Your task to perform on an android device: Do I have any events tomorrow? Image 0: 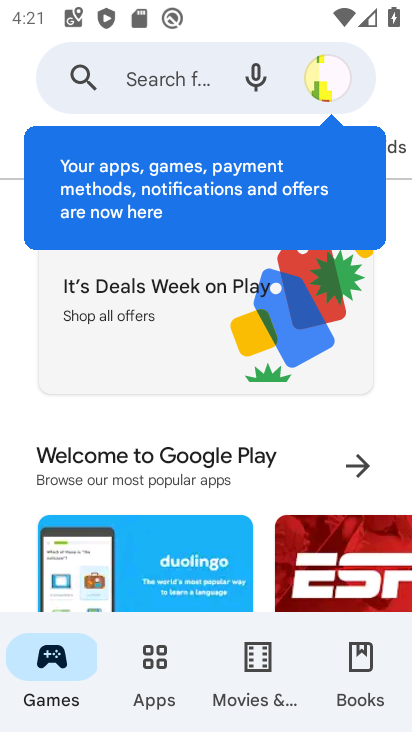
Step 0: press home button
Your task to perform on an android device: Do I have any events tomorrow? Image 1: 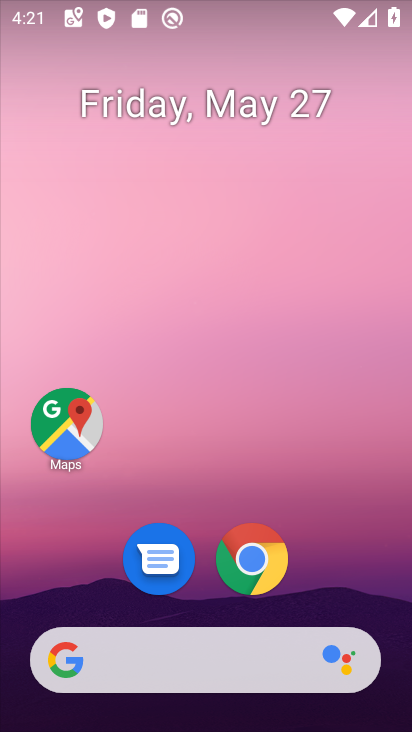
Step 1: drag from (393, 703) to (357, 148)
Your task to perform on an android device: Do I have any events tomorrow? Image 2: 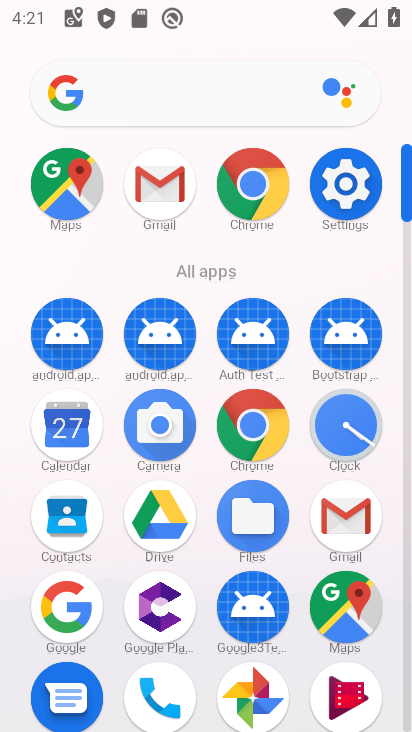
Step 2: click (67, 428)
Your task to perform on an android device: Do I have any events tomorrow? Image 3: 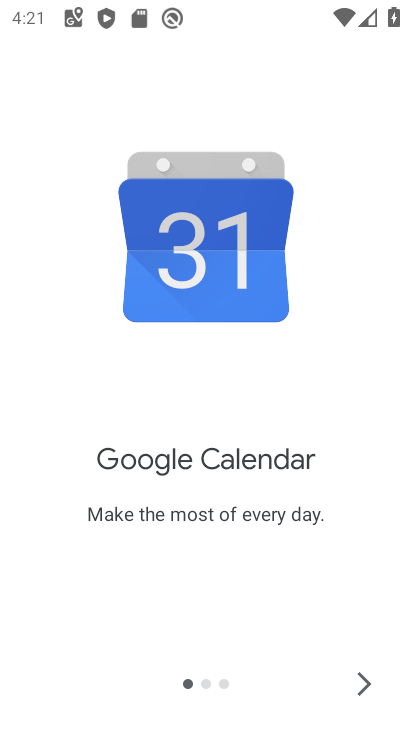
Step 3: click (350, 687)
Your task to perform on an android device: Do I have any events tomorrow? Image 4: 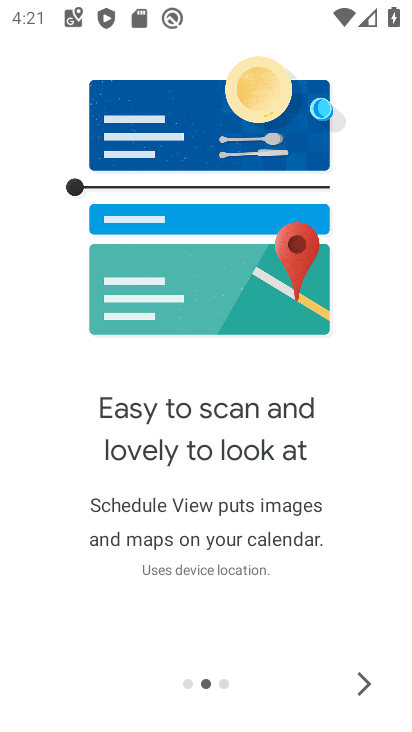
Step 4: click (352, 683)
Your task to perform on an android device: Do I have any events tomorrow? Image 5: 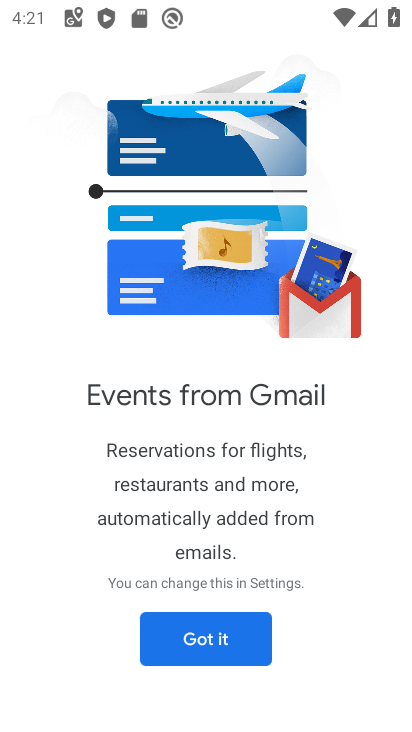
Step 5: click (264, 634)
Your task to perform on an android device: Do I have any events tomorrow? Image 6: 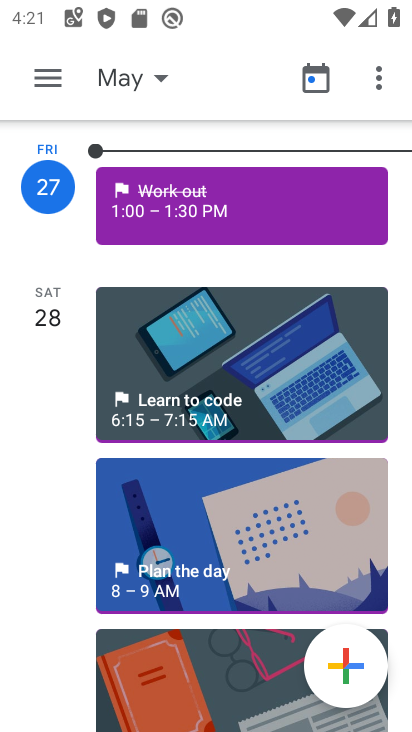
Step 6: click (161, 75)
Your task to perform on an android device: Do I have any events tomorrow? Image 7: 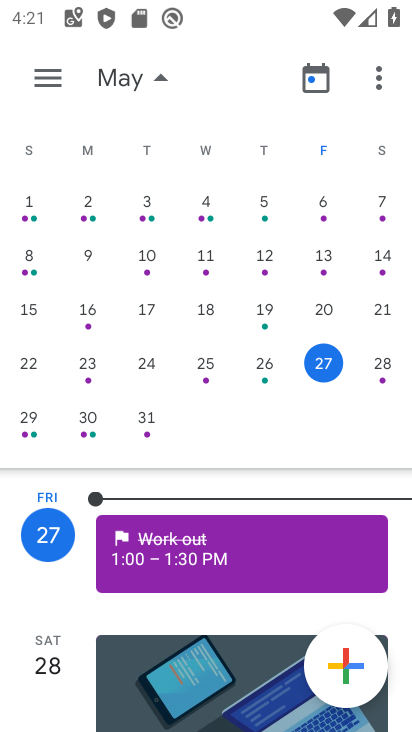
Step 7: click (384, 359)
Your task to perform on an android device: Do I have any events tomorrow? Image 8: 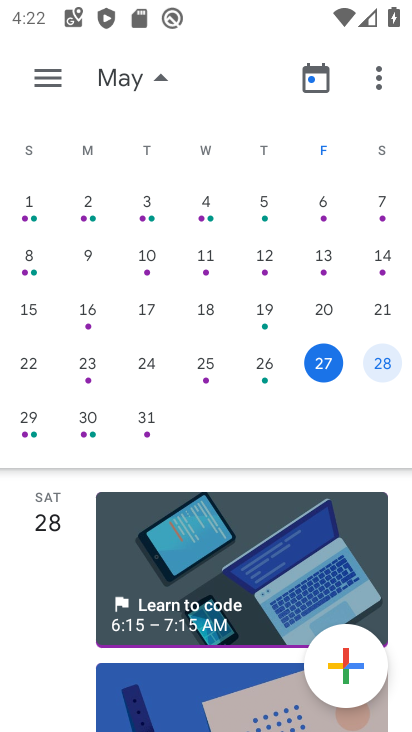
Step 8: click (58, 79)
Your task to perform on an android device: Do I have any events tomorrow? Image 9: 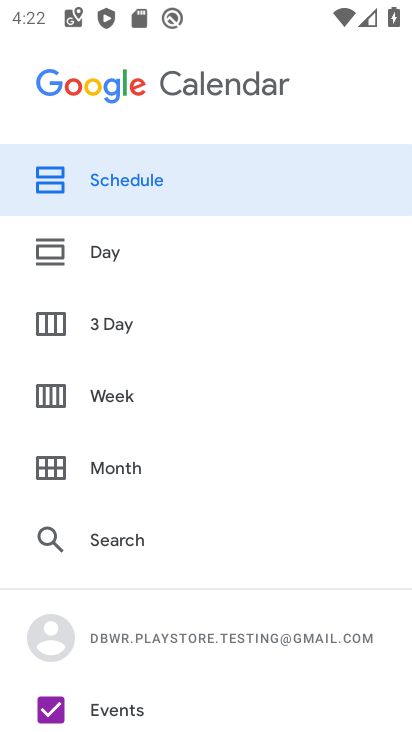
Step 9: click (96, 253)
Your task to perform on an android device: Do I have any events tomorrow? Image 10: 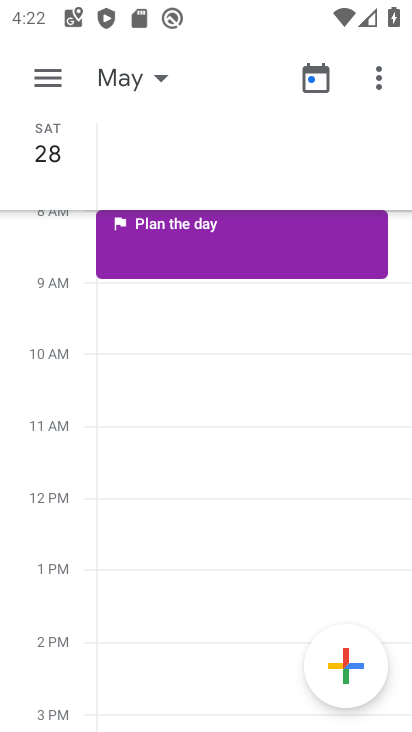
Step 10: task complete